Your task to perform on an android device: Open Google Maps Image 0: 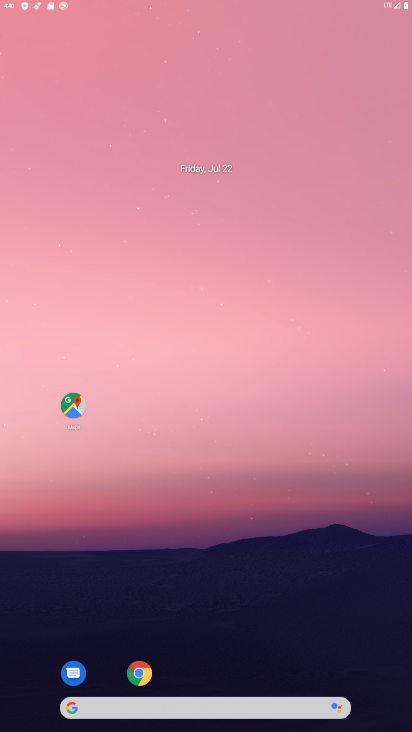
Step 0: press home button
Your task to perform on an android device: Open Google Maps Image 1: 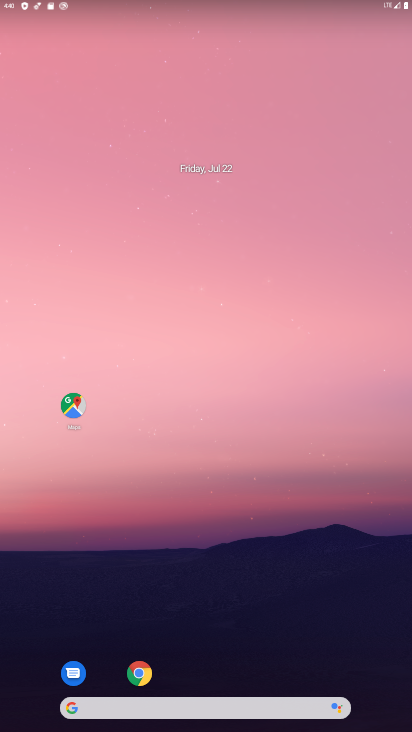
Step 1: click (79, 400)
Your task to perform on an android device: Open Google Maps Image 2: 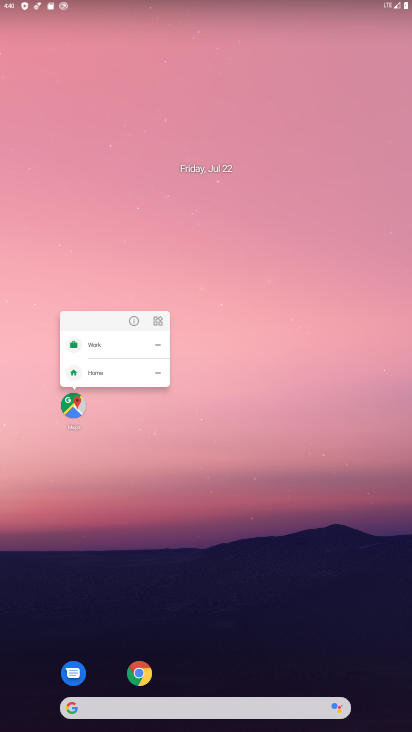
Step 2: click (79, 401)
Your task to perform on an android device: Open Google Maps Image 3: 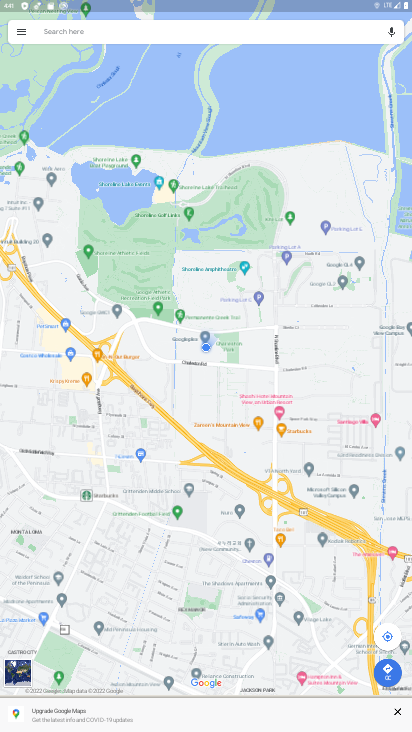
Step 3: task complete